Your task to perform on an android device: Go to Google Image 0: 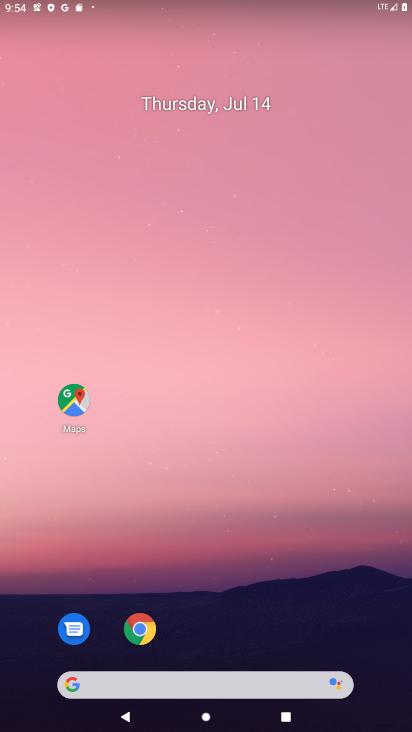
Step 0: click (108, 681)
Your task to perform on an android device: Go to Google Image 1: 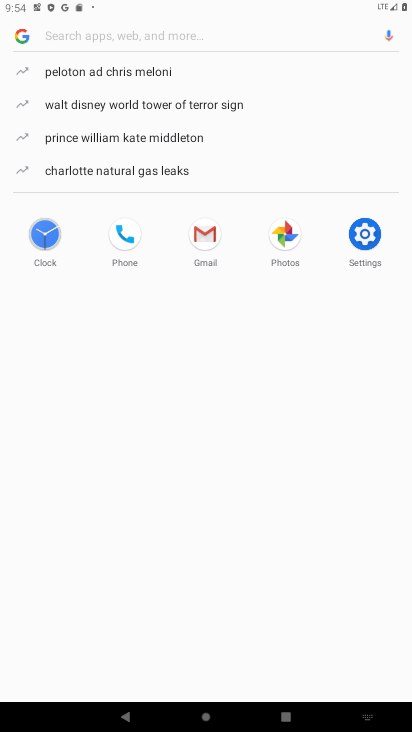
Step 1: click (15, 42)
Your task to perform on an android device: Go to Google Image 2: 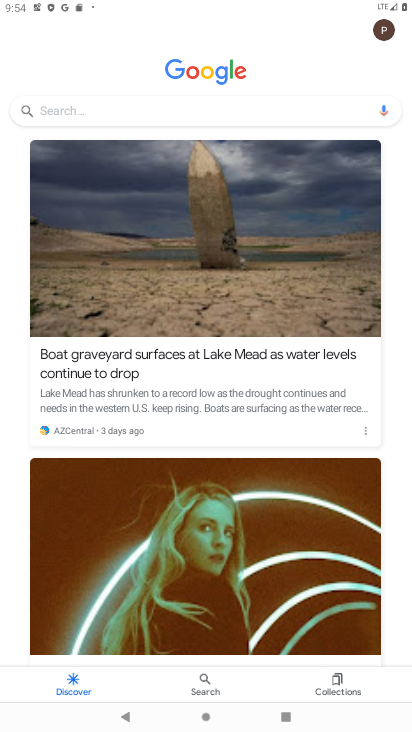
Step 2: task complete